Your task to perform on an android device: Go to network settings Image 0: 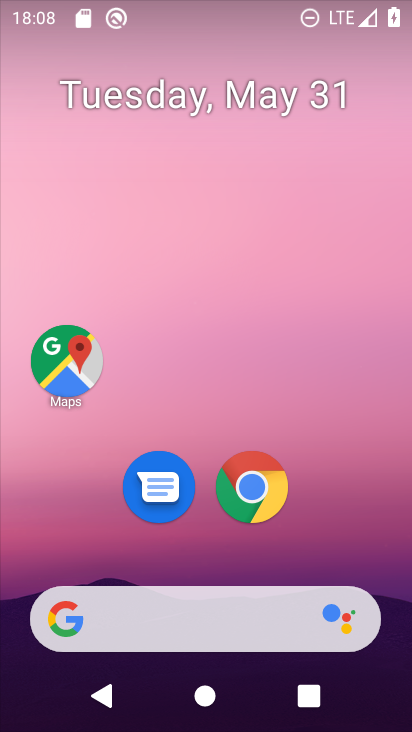
Step 0: drag from (338, 518) to (254, 135)
Your task to perform on an android device: Go to network settings Image 1: 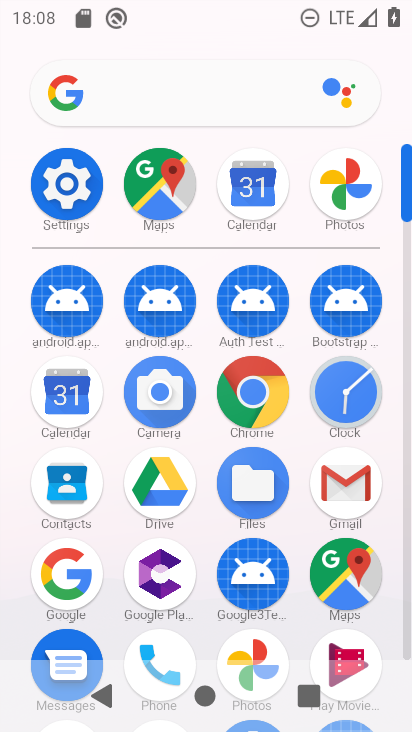
Step 1: click (61, 179)
Your task to perform on an android device: Go to network settings Image 2: 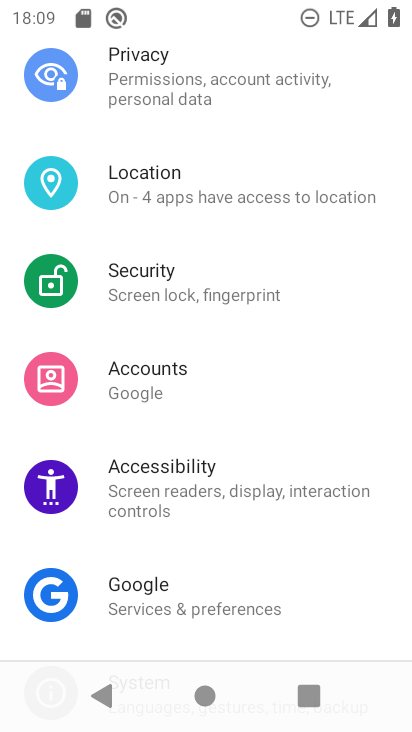
Step 2: drag from (218, 152) to (310, 542)
Your task to perform on an android device: Go to network settings Image 3: 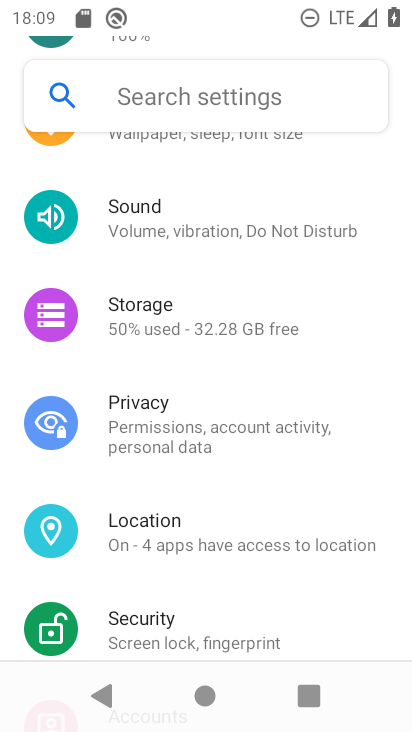
Step 3: drag from (198, 258) to (230, 709)
Your task to perform on an android device: Go to network settings Image 4: 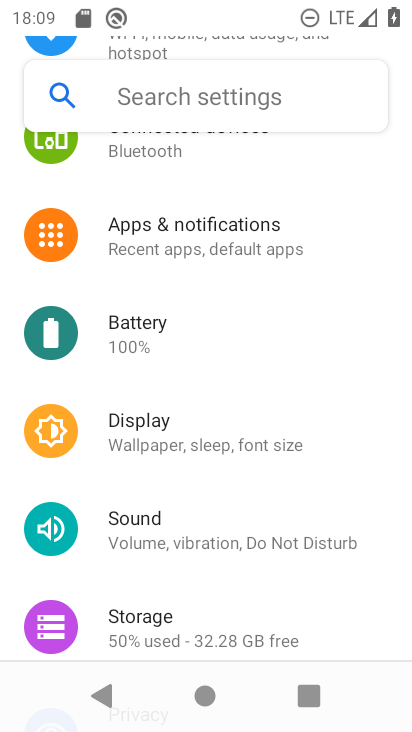
Step 4: drag from (195, 290) to (224, 594)
Your task to perform on an android device: Go to network settings Image 5: 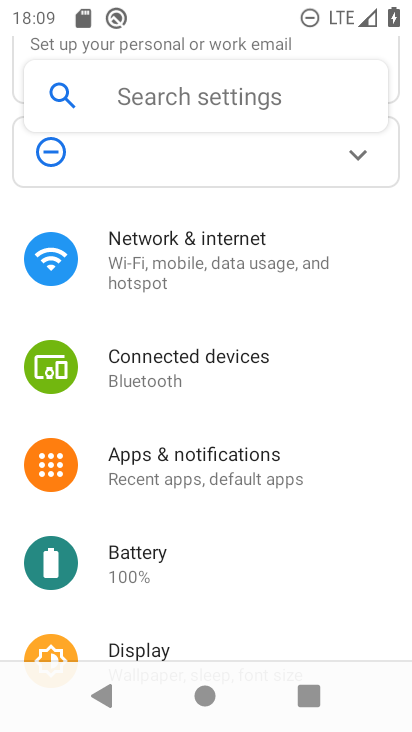
Step 5: click (168, 241)
Your task to perform on an android device: Go to network settings Image 6: 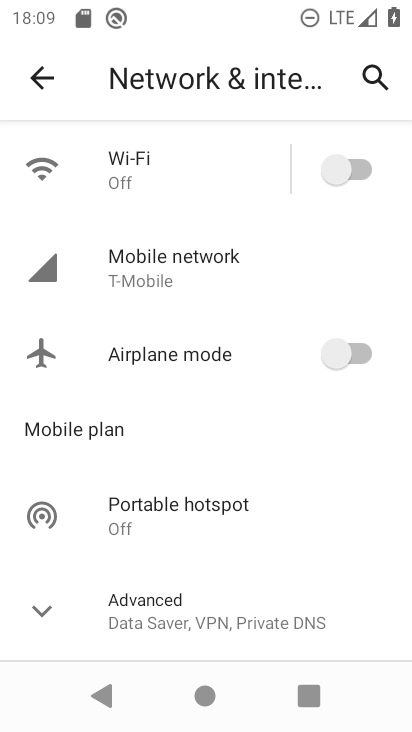
Step 6: task complete